Your task to perform on an android device: Go to Android settings Image 0: 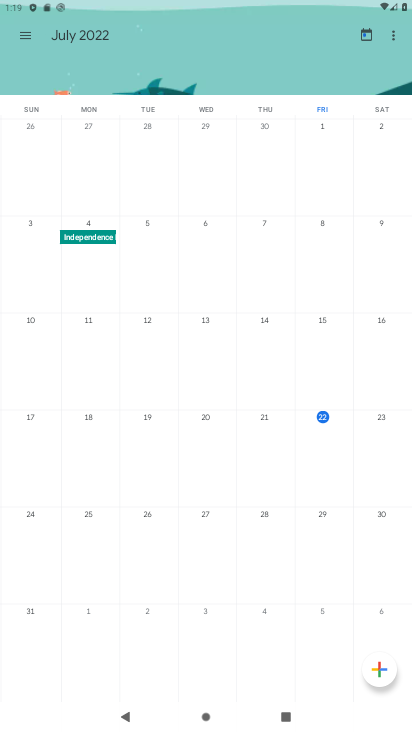
Step 0: press home button
Your task to perform on an android device: Go to Android settings Image 1: 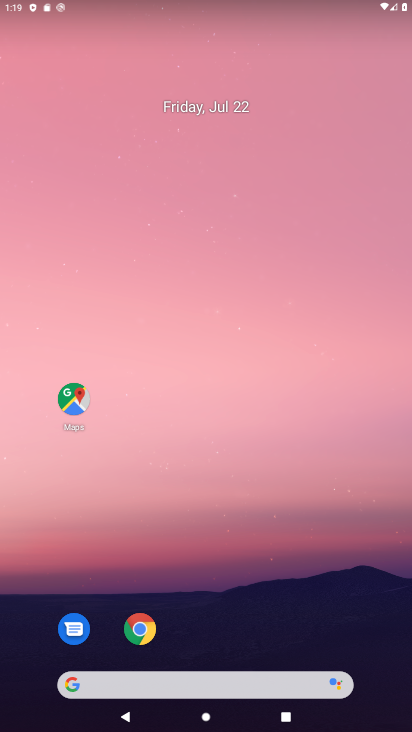
Step 1: drag from (224, 547) to (282, 162)
Your task to perform on an android device: Go to Android settings Image 2: 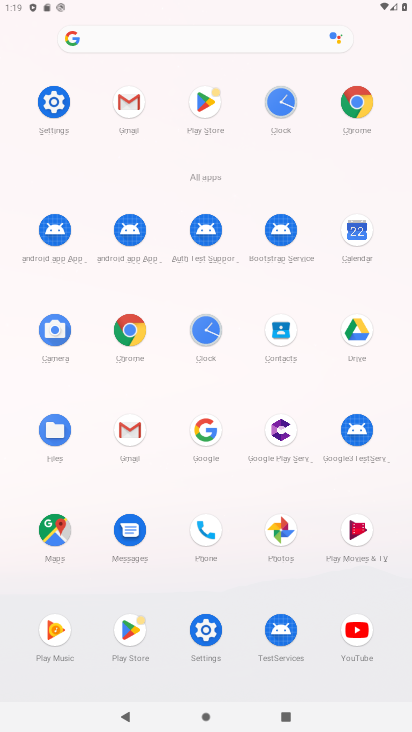
Step 2: click (204, 645)
Your task to perform on an android device: Go to Android settings Image 3: 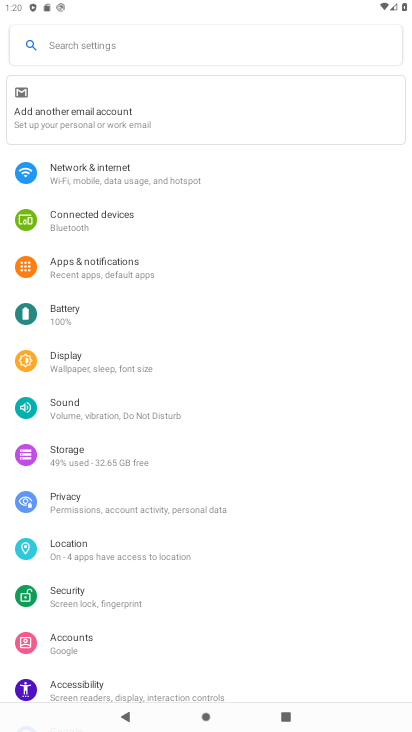
Step 3: press home button
Your task to perform on an android device: Go to Android settings Image 4: 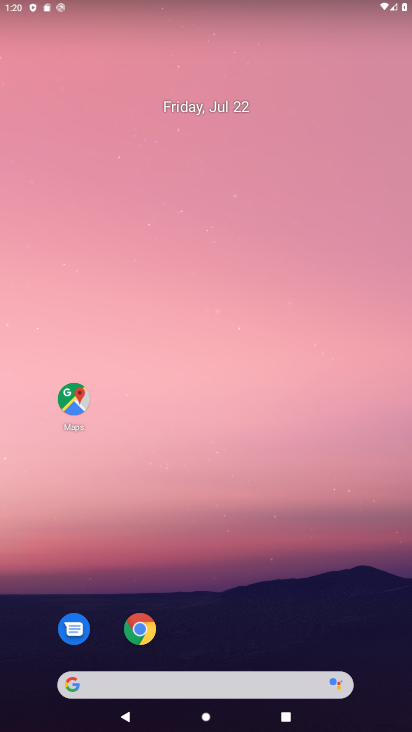
Step 4: drag from (195, 577) to (245, 88)
Your task to perform on an android device: Go to Android settings Image 5: 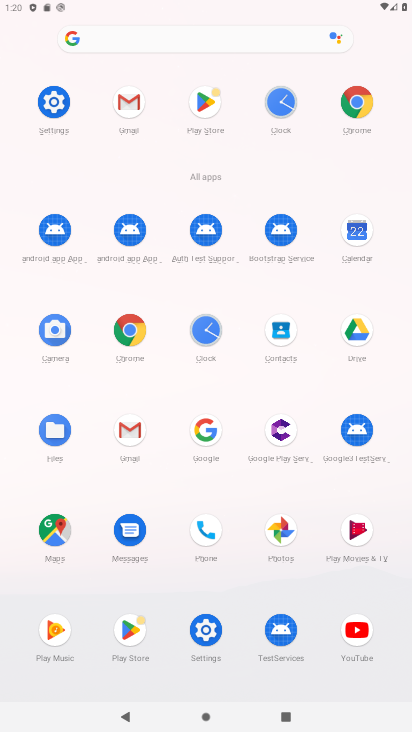
Step 5: click (215, 643)
Your task to perform on an android device: Go to Android settings Image 6: 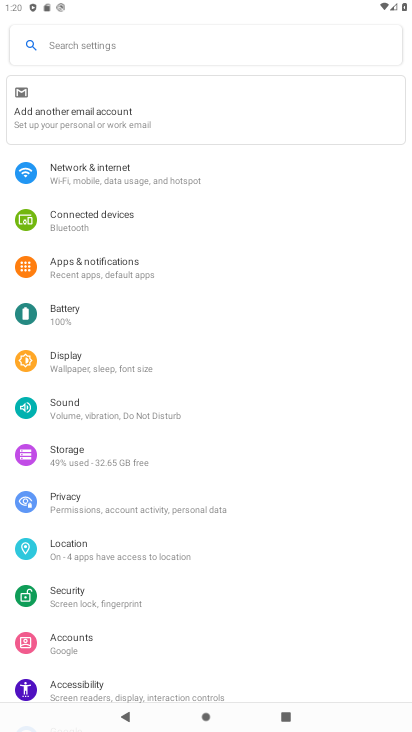
Step 6: task complete